Your task to perform on an android device: open sync settings in chrome Image 0: 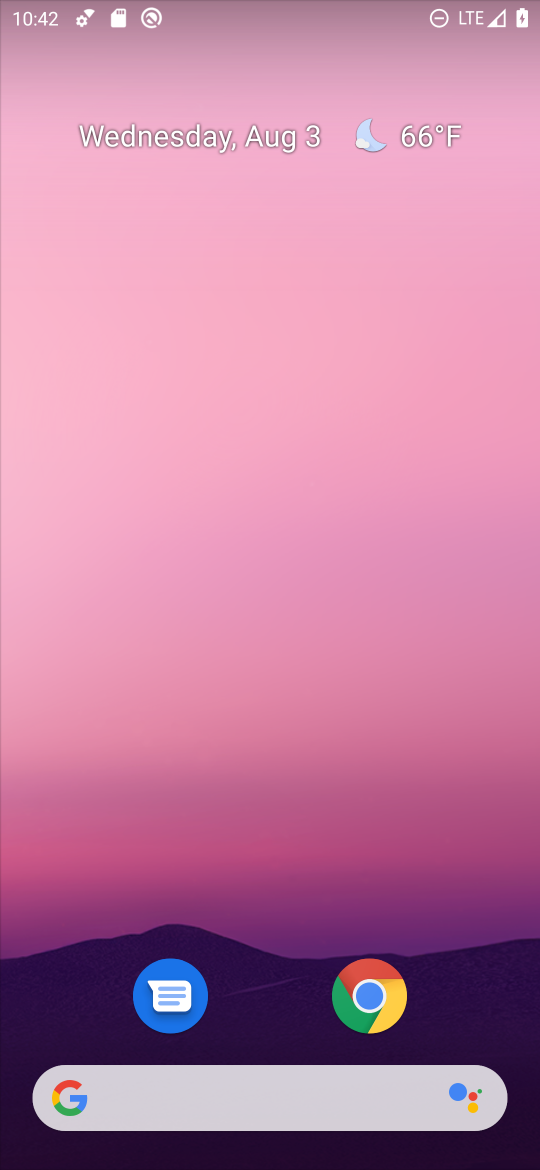
Step 0: drag from (277, 889) to (273, 138)
Your task to perform on an android device: open sync settings in chrome Image 1: 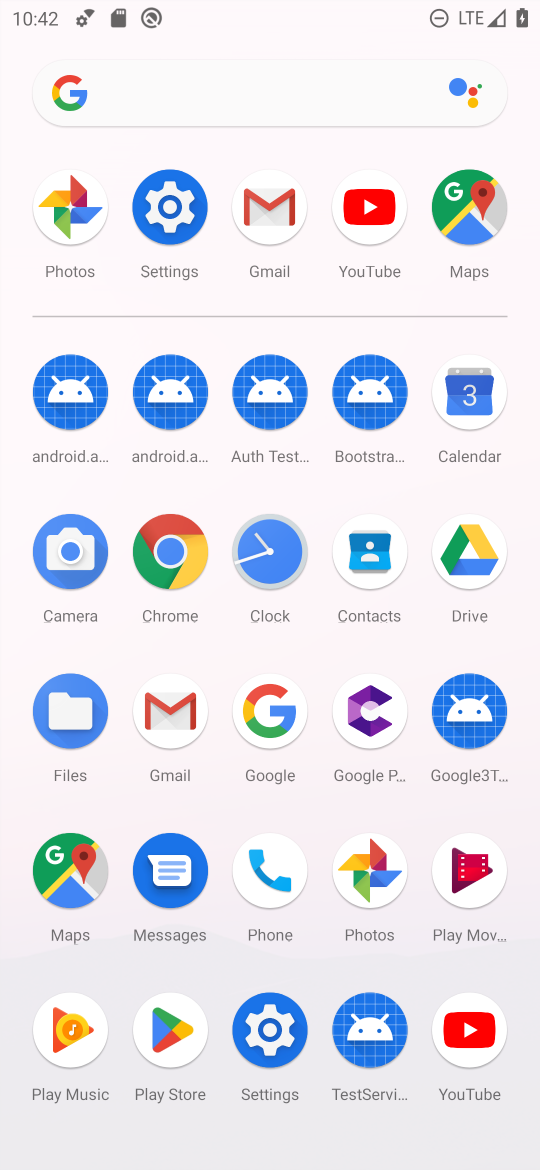
Step 1: click (175, 540)
Your task to perform on an android device: open sync settings in chrome Image 2: 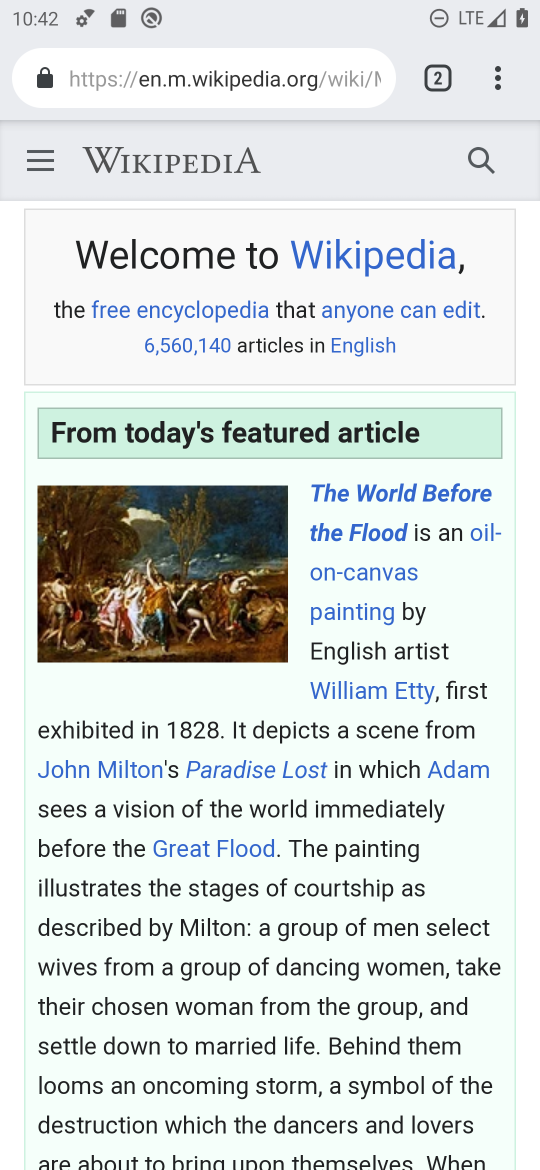
Step 2: press back button
Your task to perform on an android device: open sync settings in chrome Image 3: 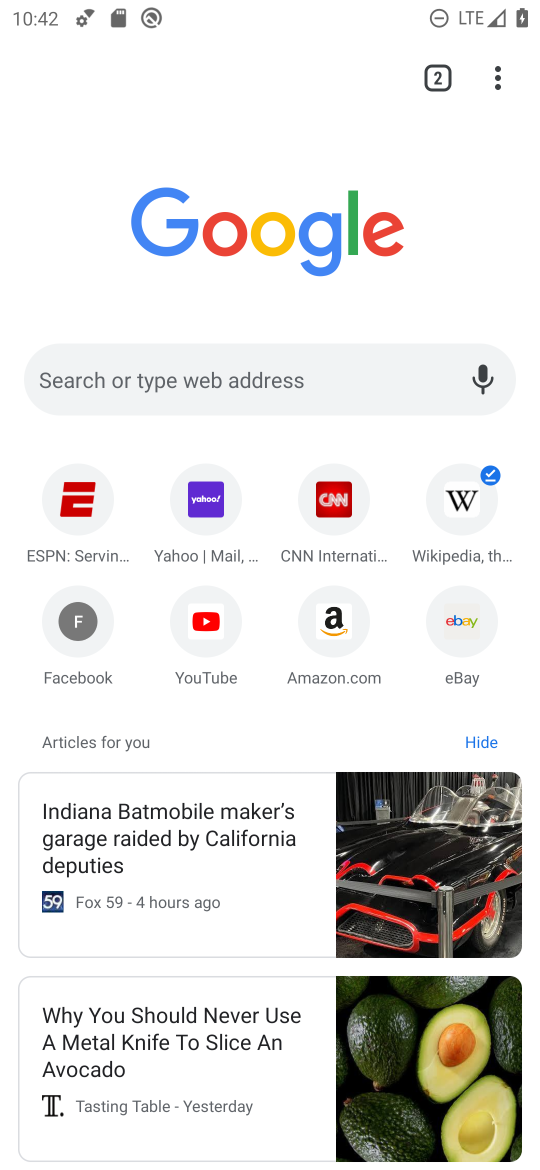
Step 3: click (501, 82)
Your task to perform on an android device: open sync settings in chrome Image 4: 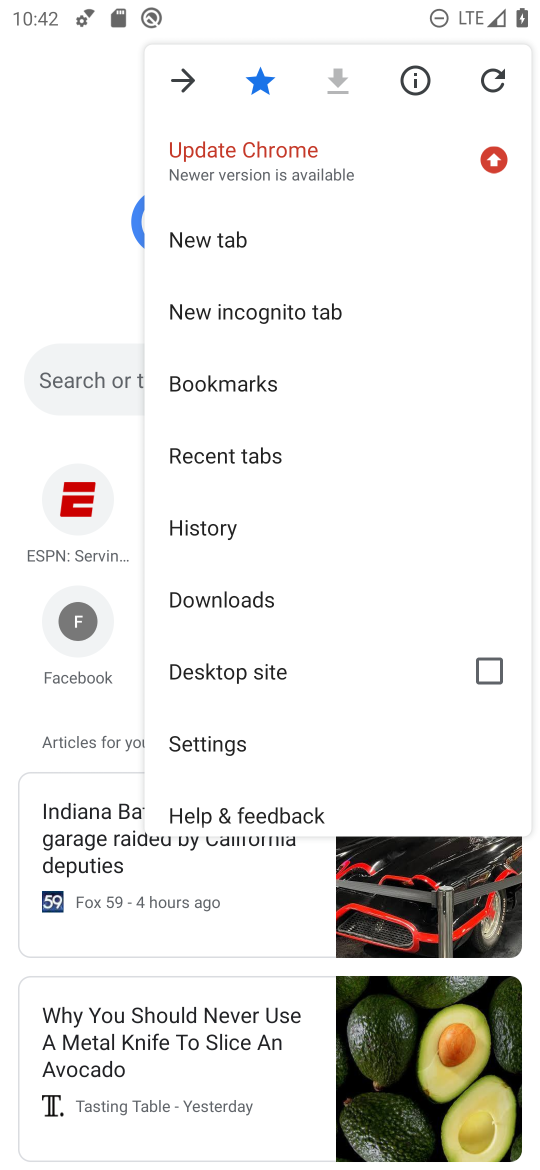
Step 4: click (219, 737)
Your task to perform on an android device: open sync settings in chrome Image 5: 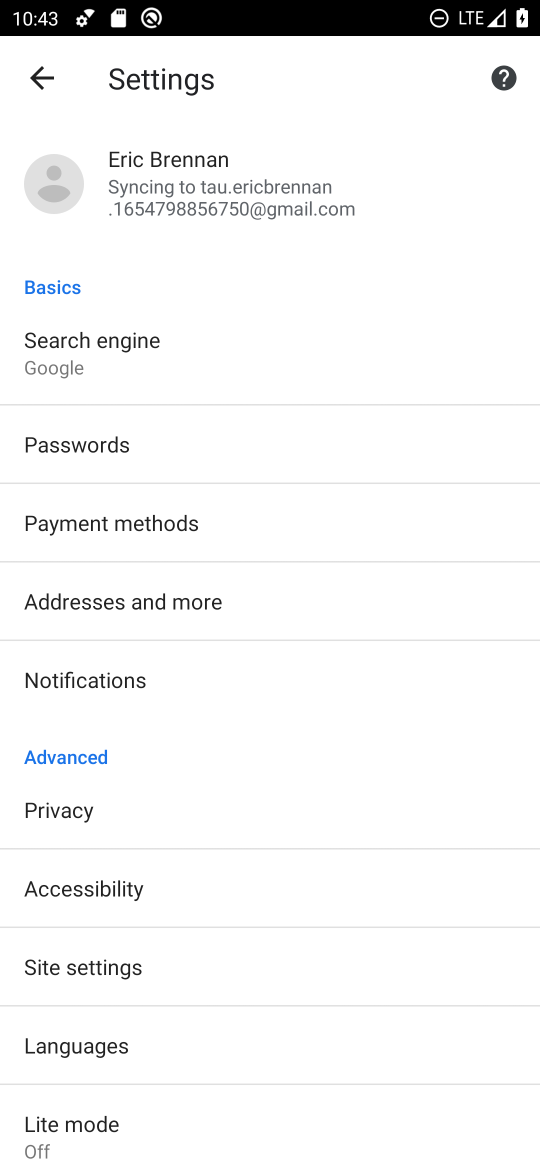
Step 5: click (237, 206)
Your task to perform on an android device: open sync settings in chrome Image 6: 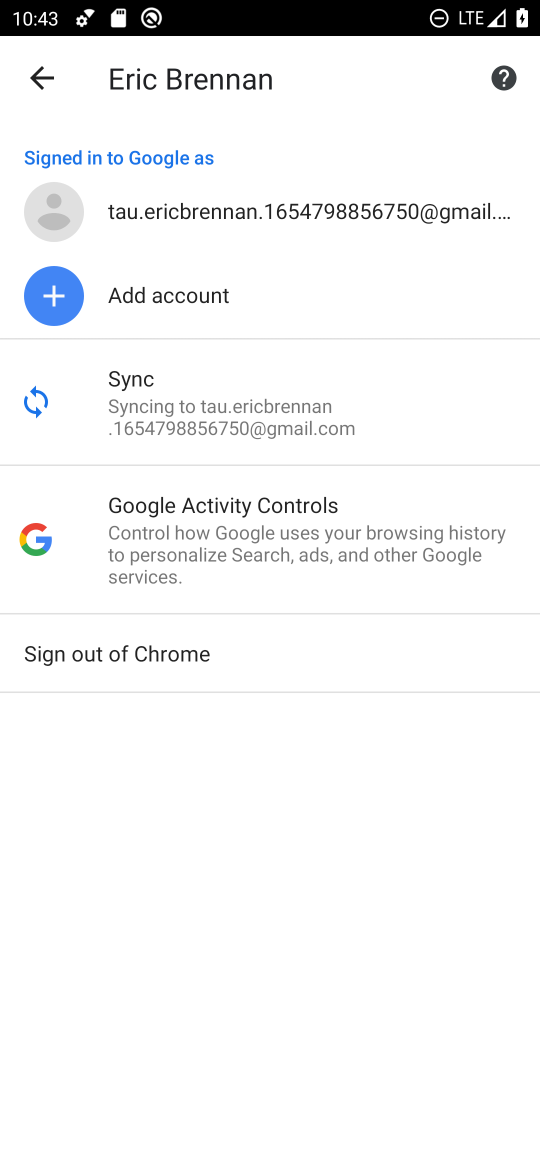
Step 6: click (222, 398)
Your task to perform on an android device: open sync settings in chrome Image 7: 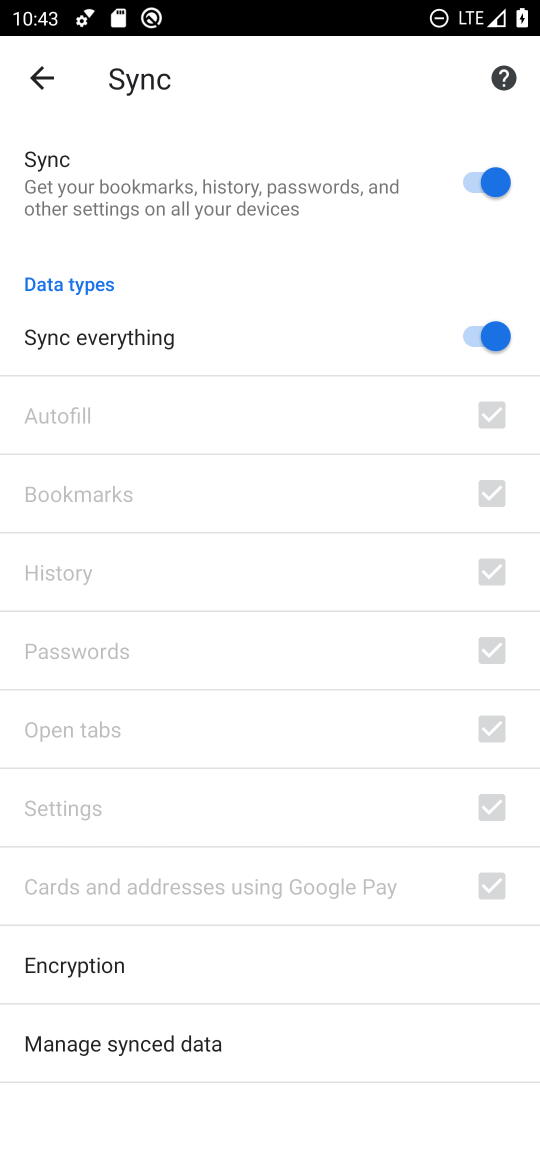
Step 7: task complete